Your task to perform on an android device: move a message to another label in the gmail app Image 0: 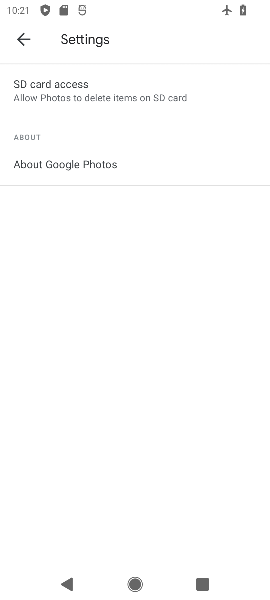
Step 0: press home button
Your task to perform on an android device: move a message to another label in the gmail app Image 1: 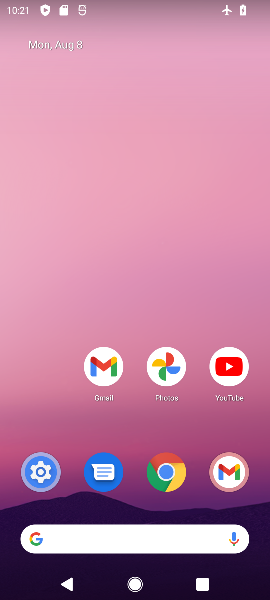
Step 1: drag from (154, 547) to (144, 76)
Your task to perform on an android device: move a message to another label in the gmail app Image 2: 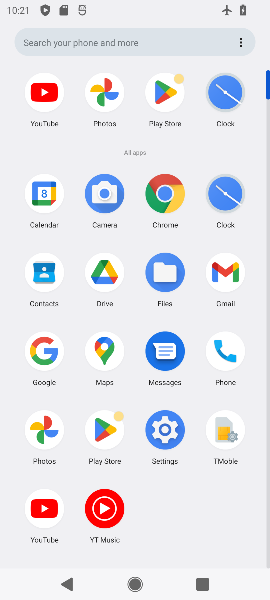
Step 2: click (236, 283)
Your task to perform on an android device: move a message to another label in the gmail app Image 3: 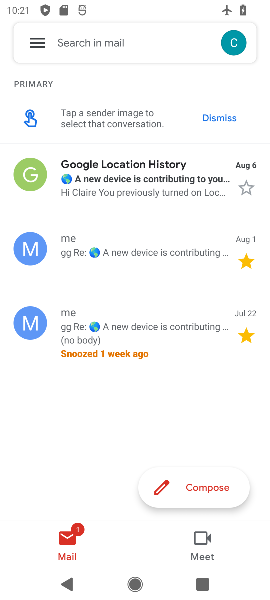
Step 3: click (141, 174)
Your task to perform on an android device: move a message to another label in the gmail app Image 4: 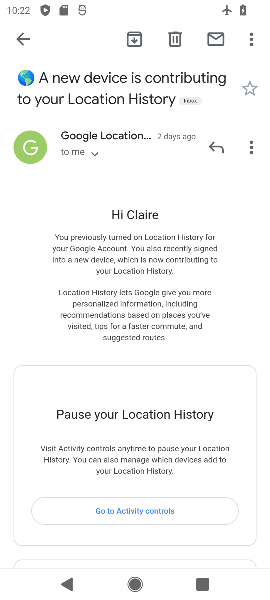
Step 4: click (250, 38)
Your task to perform on an android device: move a message to another label in the gmail app Image 5: 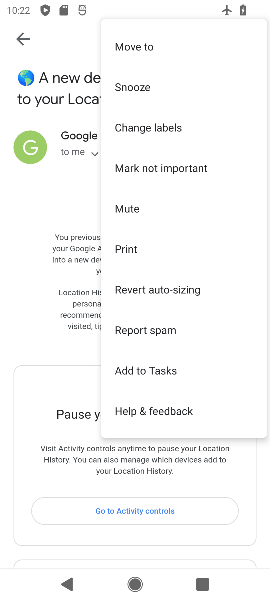
Step 5: click (168, 128)
Your task to perform on an android device: move a message to another label in the gmail app Image 6: 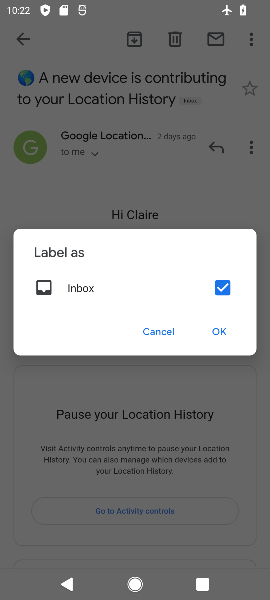
Step 6: click (220, 331)
Your task to perform on an android device: move a message to another label in the gmail app Image 7: 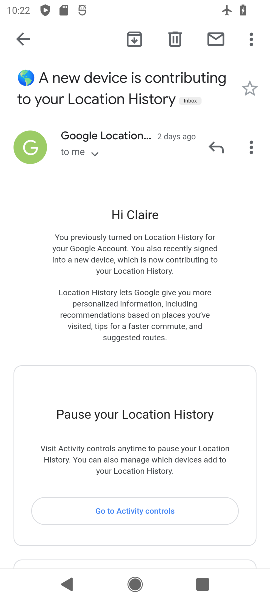
Step 7: task complete